Your task to perform on an android device: Go to privacy settings Image 0: 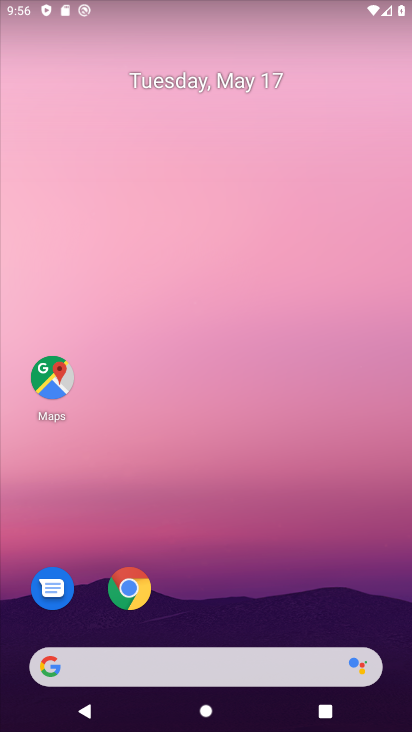
Step 0: drag from (211, 619) to (222, 26)
Your task to perform on an android device: Go to privacy settings Image 1: 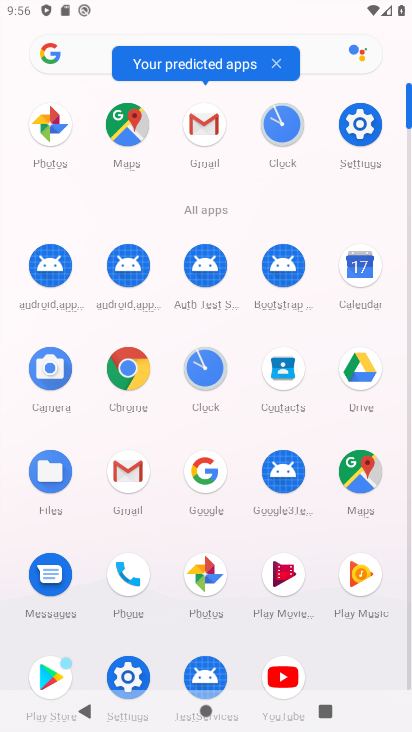
Step 1: click (359, 124)
Your task to perform on an android device: Go to privacy settings Image 2: 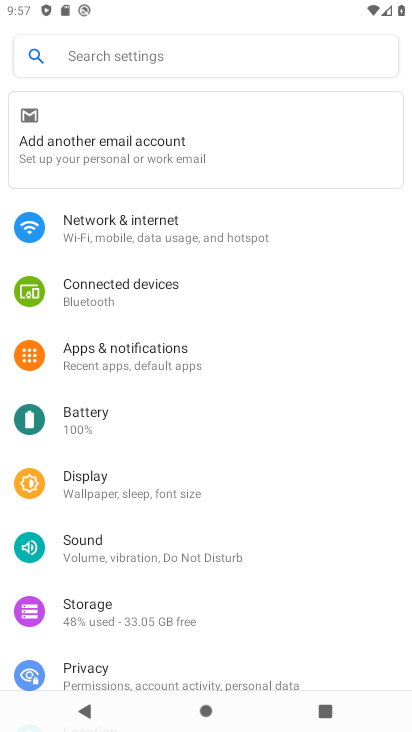
Step 2: click (274, 681)
Your task to perform on an android device: Go to privacy settings Image 3: 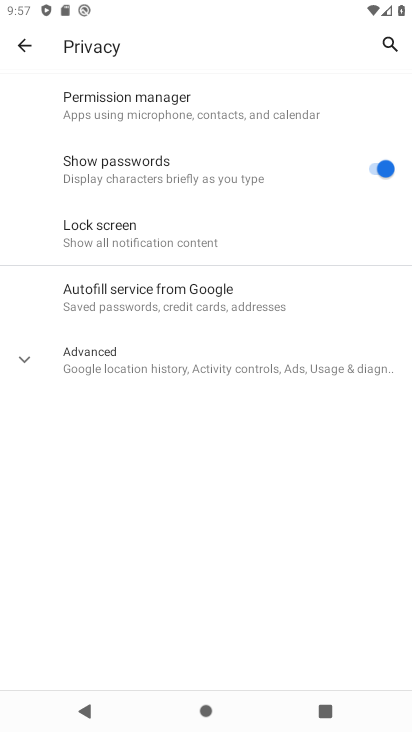
Step 3: task complete